Your task to perform on an android device: Go to Reddit.com Image 0: 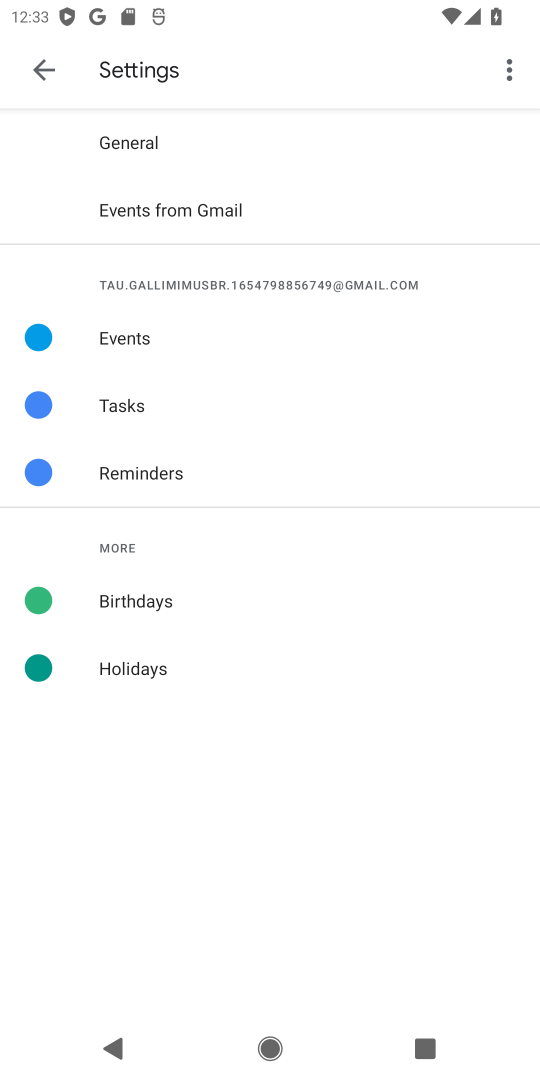
Step 0: press home button
Your task to perform on an android device: Go to Reddit.com Image 1: 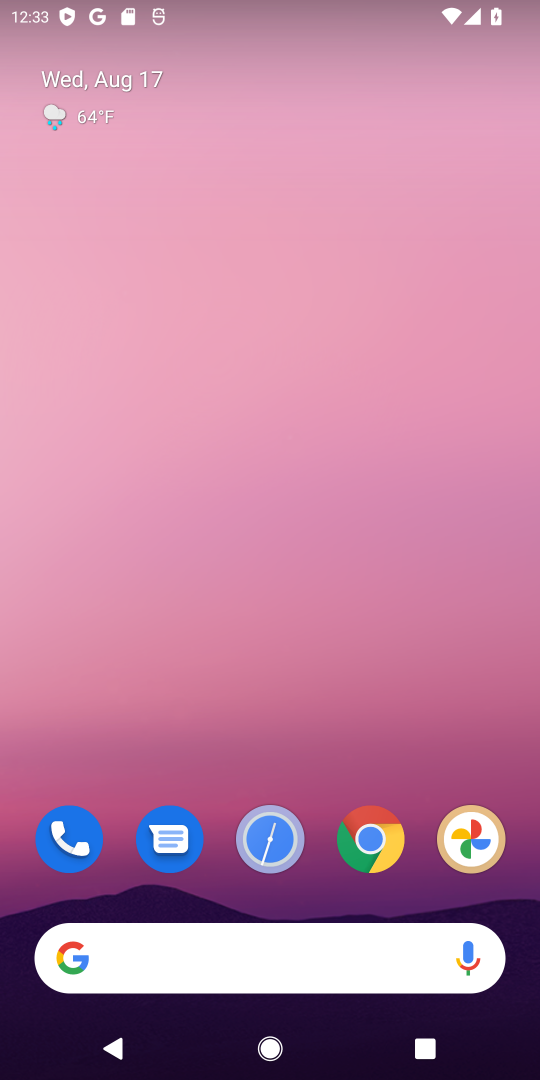
Step 1: click (370, 838)
Your task to perform on an android device: Go to Reddit.com Image 2: 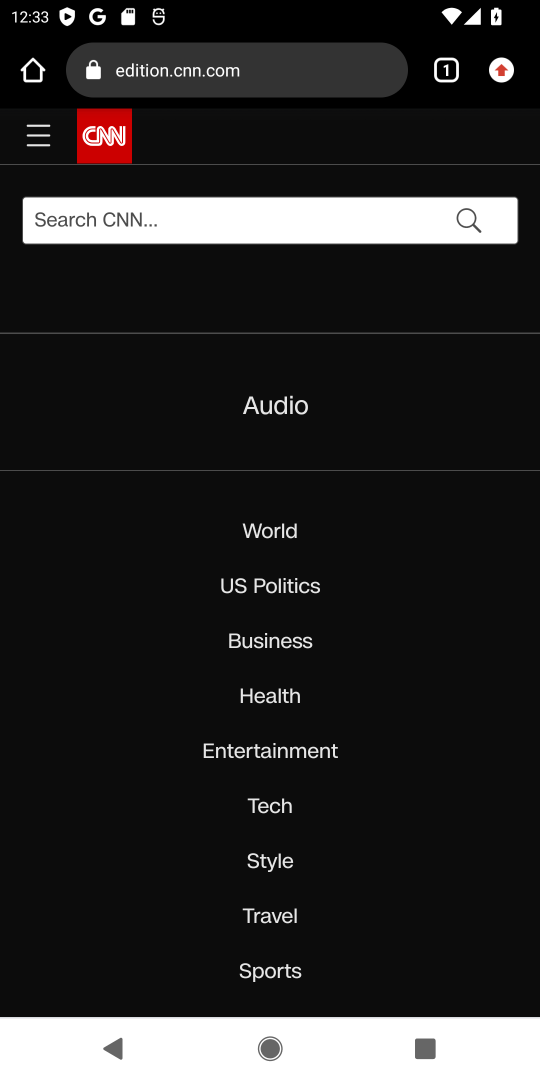
Step 2: click (265, 77)
Your task to perform on an android device: Go to Reddit.com Image 3: 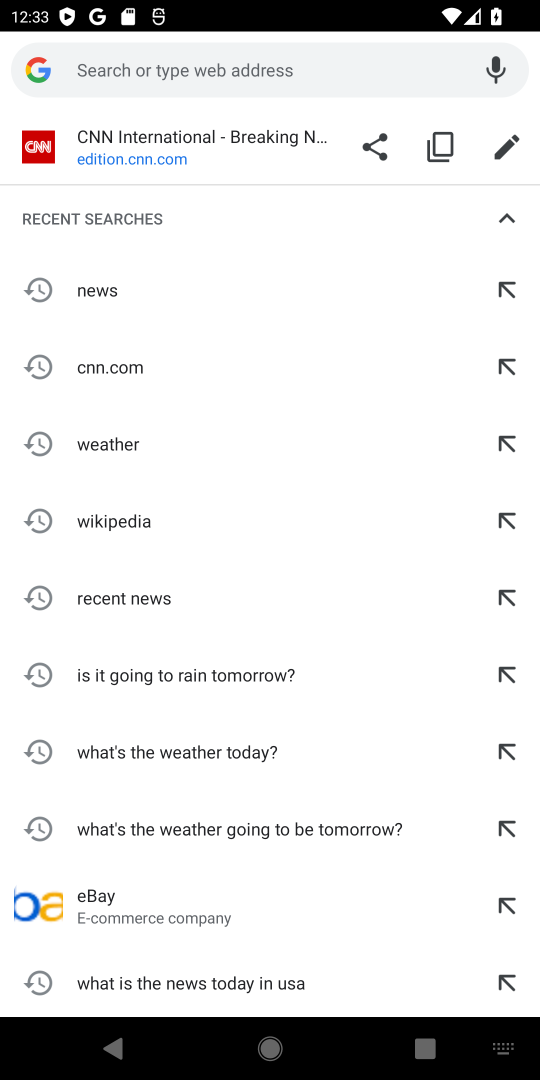
Step 3: type "Reddit.com"
Your task to perform on an android device: Go to Reddit.com Image 4: 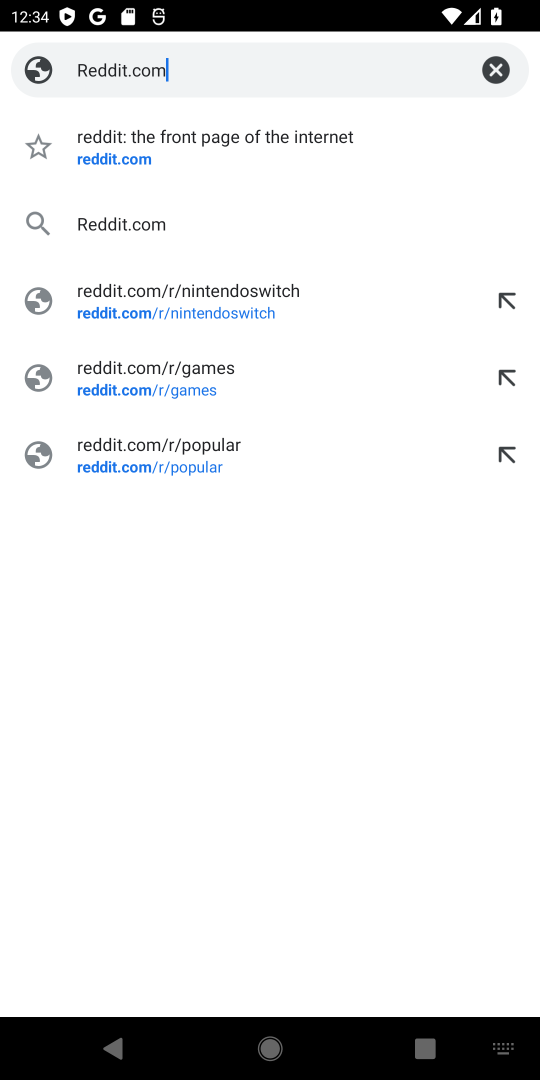
Step 4: click (144, 224)
Your task to perform on an android device: Go to Reddit.com Image 5: 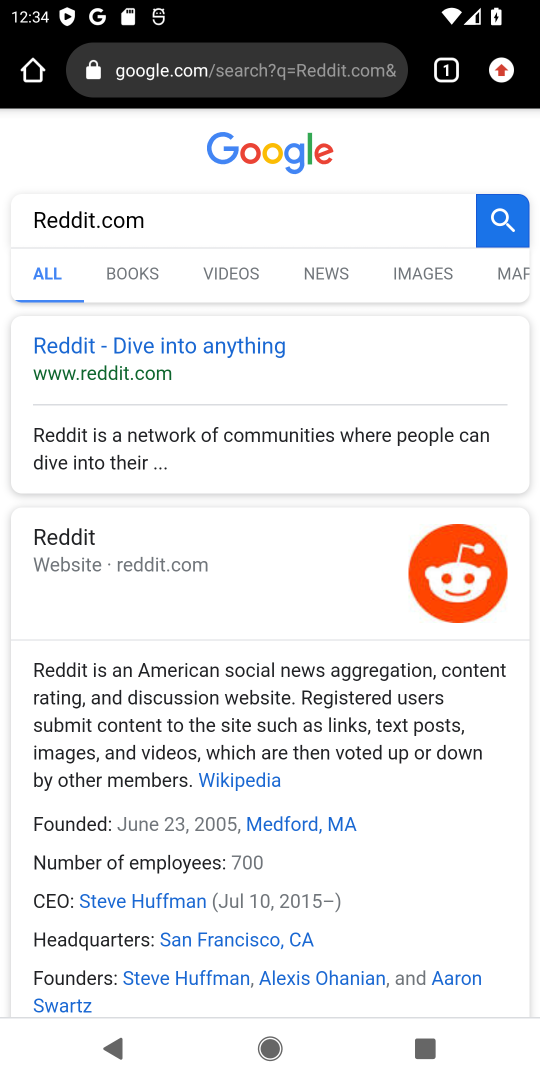
Step 5: click (112, 370)
Your task to perform on an android device: Go to Reddit.com Image 6: 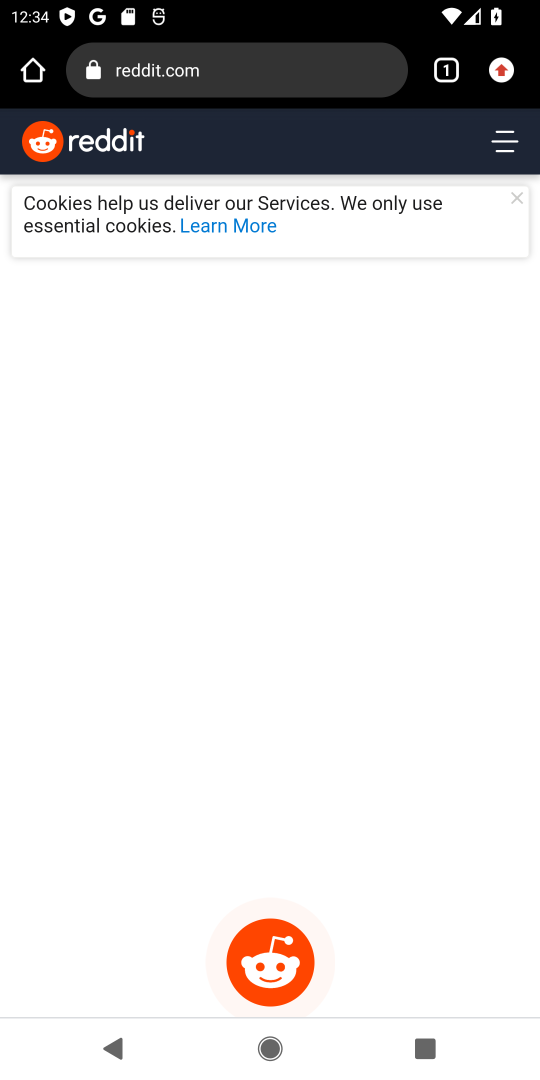
Step 6: task complete